Your task to perform on an android device: all mails in gmail Image 0: 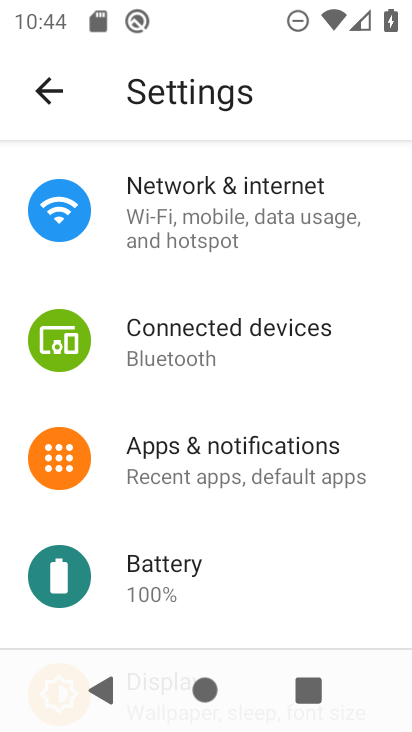
Step 0: press home button
Your task to perform on an android device: all mails in gmail Image 1: 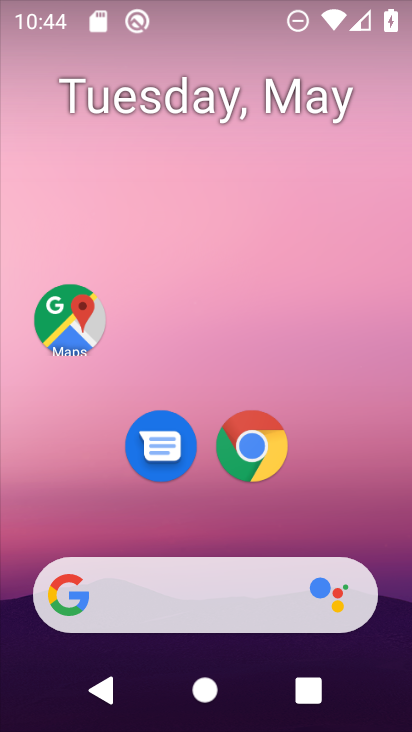
Step 1: drag from (219, 545) to (248, 4)
Your task to perform on an android device: all mails in gmail Image 2: 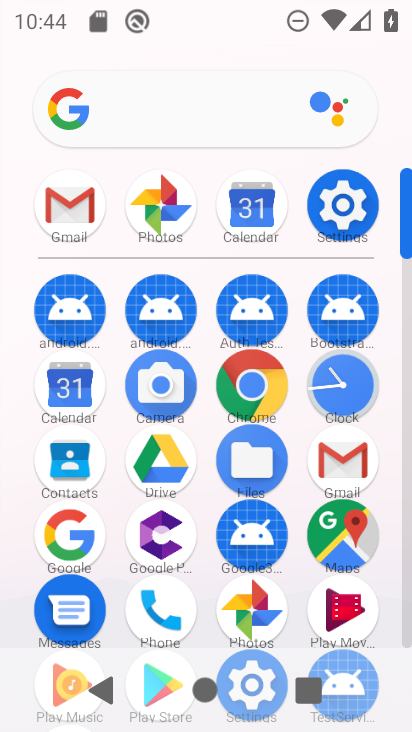
Step 2: click (341, 470)
Your task to perform on an android device: all mails in gmail Image 3: 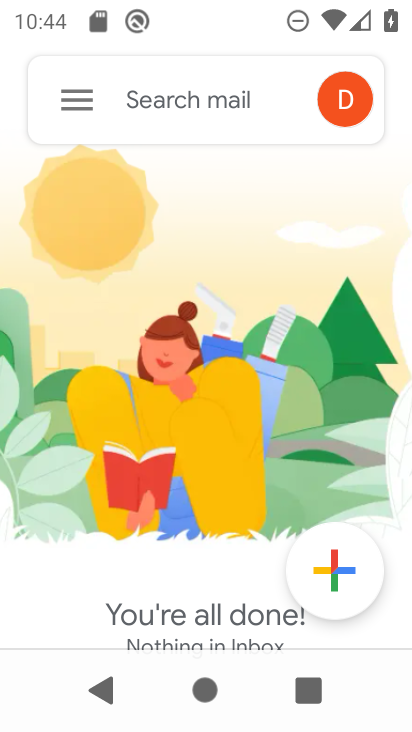
Step 3: click (79, 110)
Your task to perform on an android device: all mails in gmail Image 4: 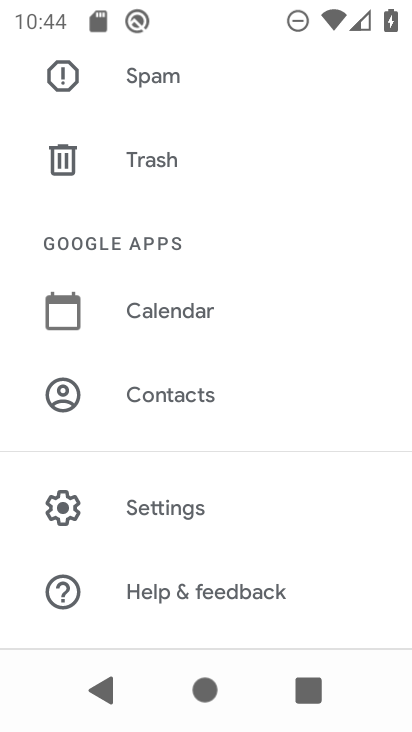
Step 4: drag from (193, 230) to (196, 474)
Your task to perform on an android device: all mails in gmail Image 5: 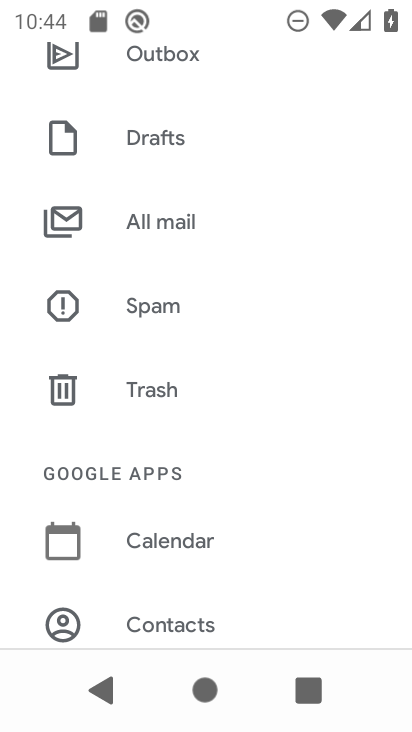
Step 5: click (154, 216)
Your task to perform on an android device: all mails in gmail Image 6: 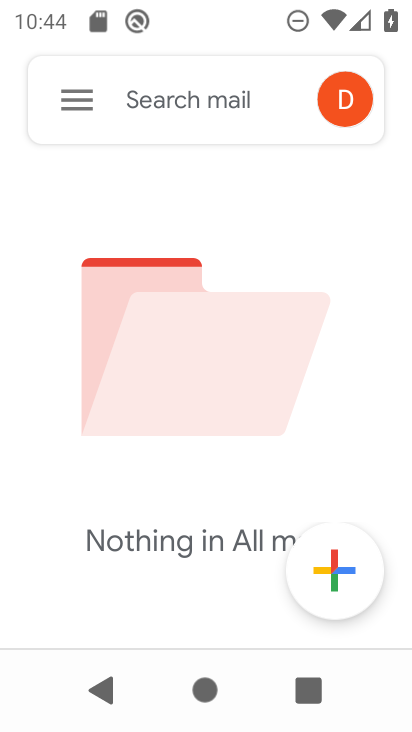
Step 6: task complete